Your task to perform on an android device: Open ESPN.com Image 0: 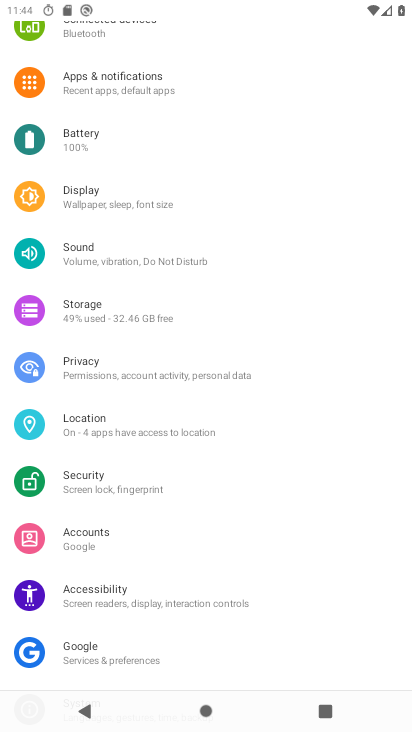
Step 0: press home button
Your task to perform on an android device: Open ESPN.com Image 1: 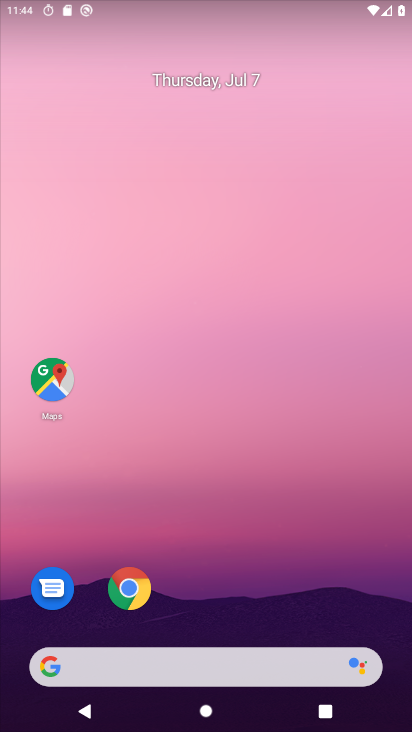
Step 1: click (124, 578)
Your task to perform on an android device: Open ESPN.com Image 2: 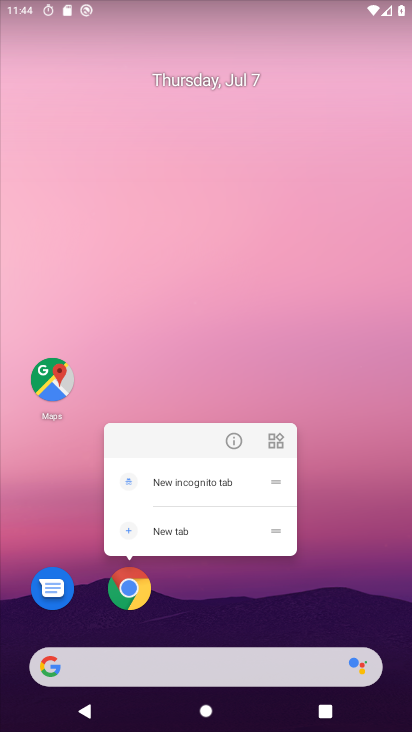
Step 2: click (135, 599)
Your task to perform on an android device: Open ESPN.com Image 3: 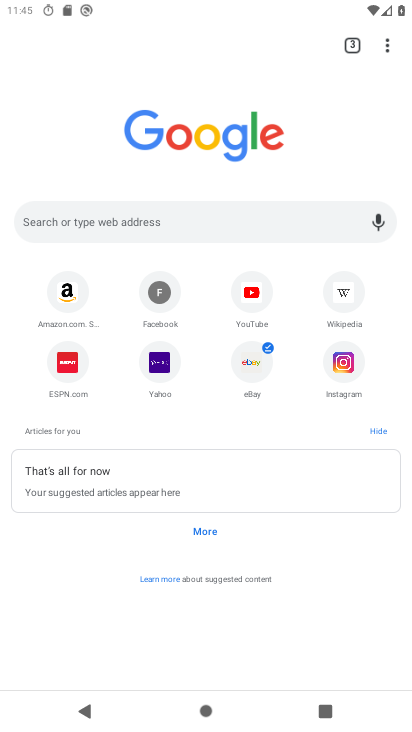
Step 3: click (68, 365)
Your task to perform on an android device: Open ESPN.com Image 4: 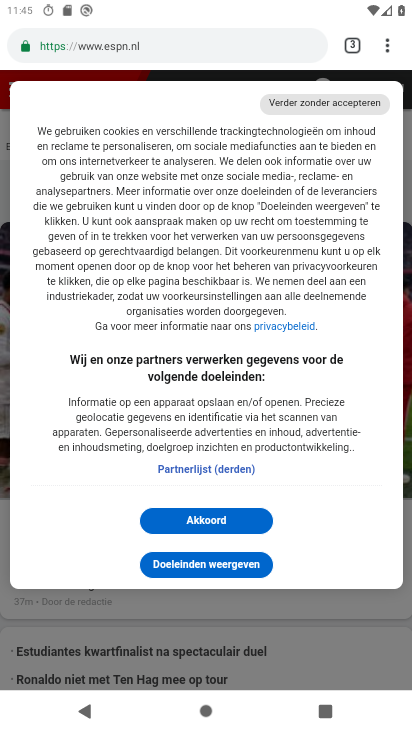
Step 4: drag from (188, 627) to (290, 186)
Your task to perform on an android device: Open ESPN.com Image 5: 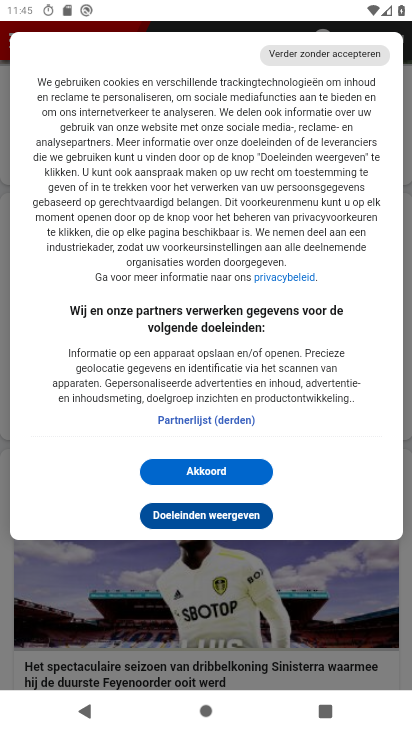
Step 5: click (215, 470)
Your task to perform on an android device: Open ESPN.com Image 6: 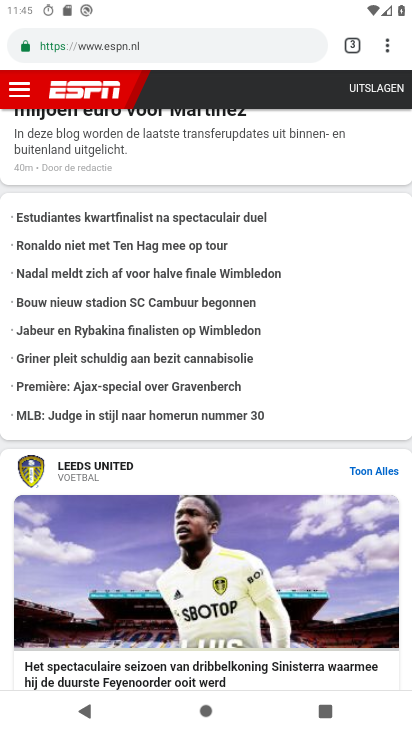
Step 6: task complete